Your task to perform on an android device: Search for vegetarian restaurants on Maps Image 0: 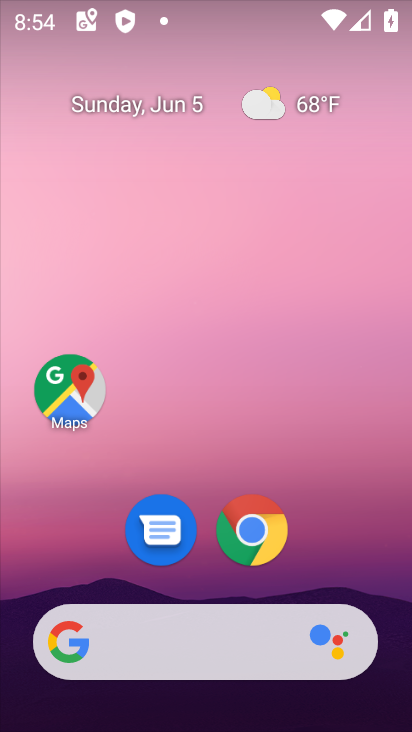
Step 0: click (71, 392)
Your task to perform on an android device: Search for vegetarian restaurants on Maps Image 1: 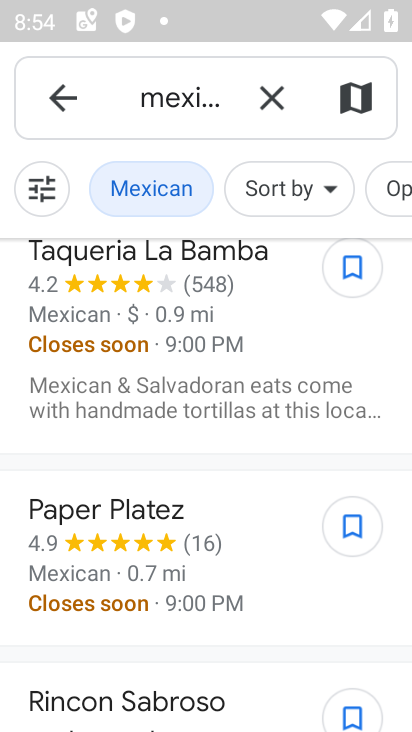
Step 1: click (271, 95)
Your task to perform on an android device: Search for vegetarian restaurants on Maps Image 2: 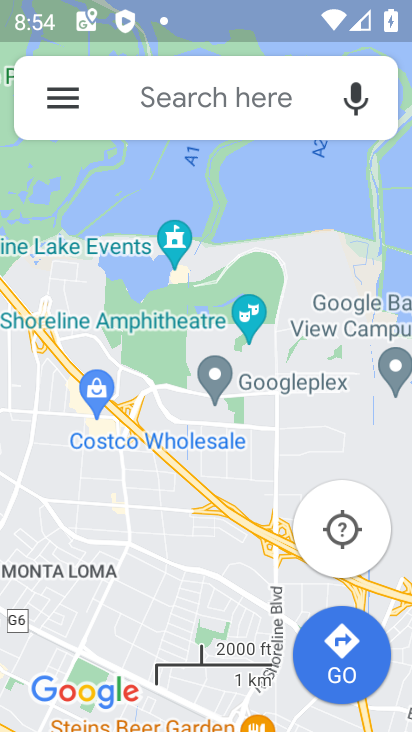
Step 2: click (188, 91)
Your task to perform on an android device: Search for vegetarian restaurants on Maps Image 3: 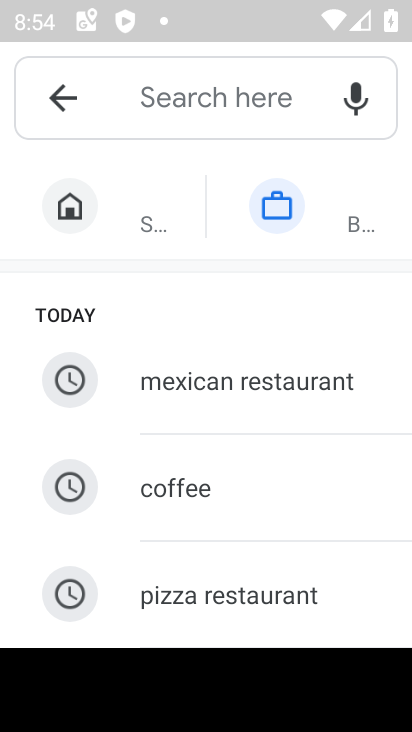
Step 3: type "vegetarian rrrestaurants"
Your task to perform on an android device: Search for vegetarian restaurants on Maps Image 4: 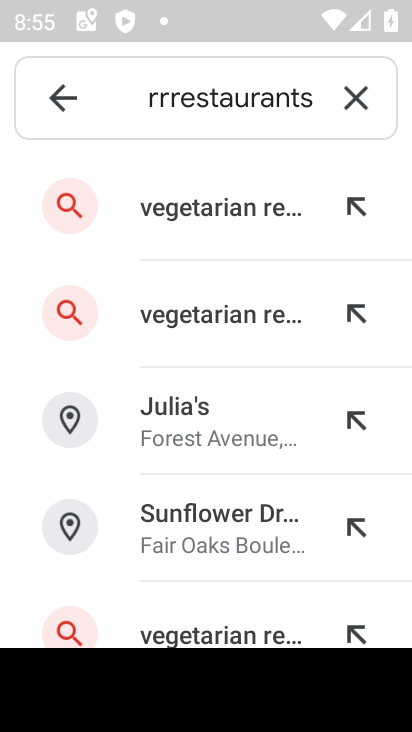
Step 4: click (178, 227)
Your task to perform on an android device: Search for vegetarian restaurants on Maps Image 5: 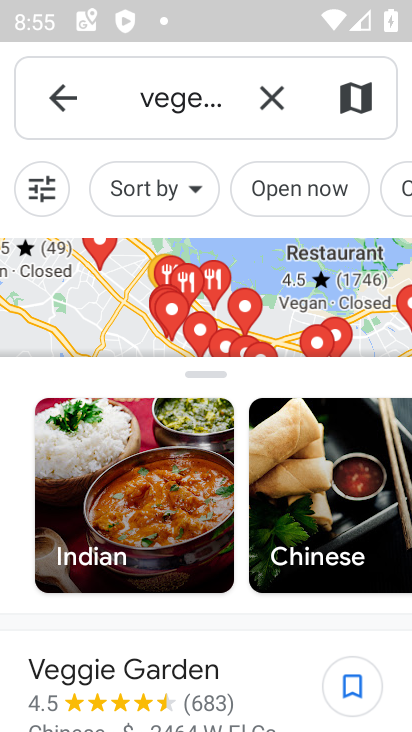
Step 5: task complete